Your task to perform on an android device: Go to eBay Image 0: 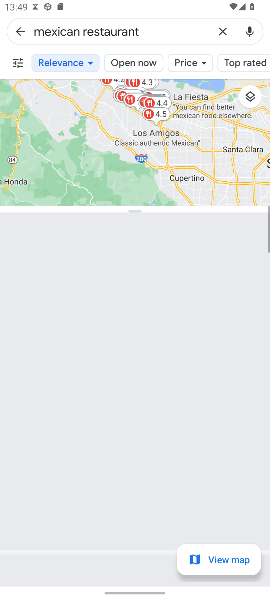
Step 0: press home button
Your task to perform on an android device: Go to eBay Image 1: 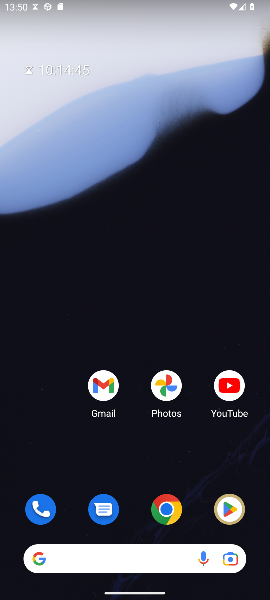
Step 1: drag from (139, 515) to (268, 72)
Your task to perform on an android device: Go to eBay Image 2: 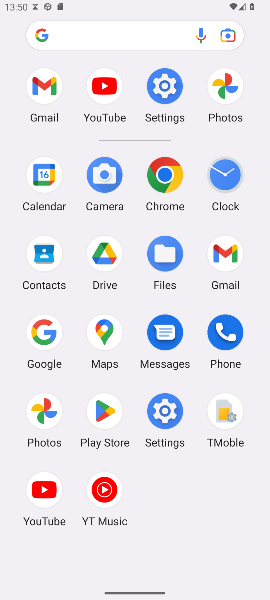
Step 2: click (43, 341)
Your task to perform on an android device: Go to eBay Image 3: 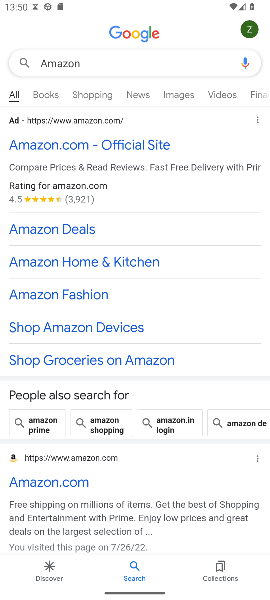
Step 3: click (110, 61)
Your task to perform on an android device: Go to eBay Image 4: 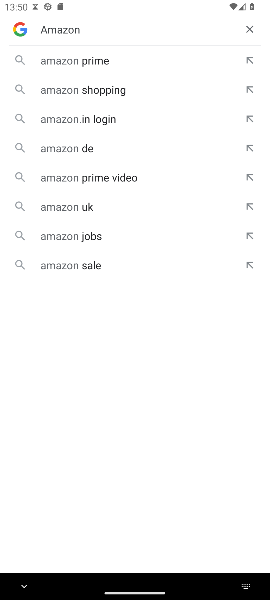
Step 4: click (249, 28)
Your task to perform on an android device: Go to eBay Image 5: 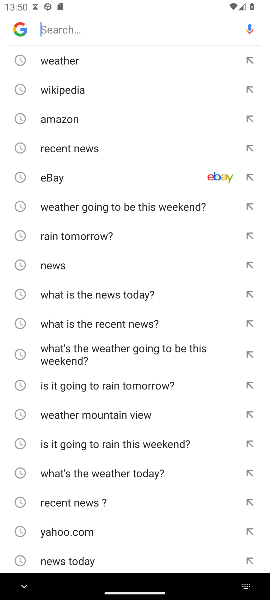
Step 5: type "eBay"
Your task to perform on an android device: Go to eBay Image 6: 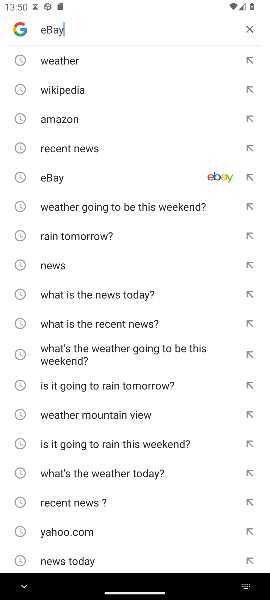
Step 6: press enter
Your task to perform on an android device: Go to eBay Image 7: 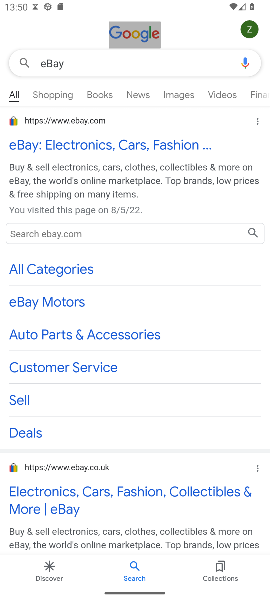
Step 7: click (116, 147)
Your task to perform on an android device: Go to eBay Image 8: 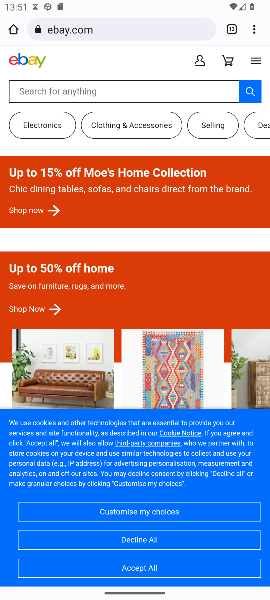
Step 8: task complete